Your task to perform on an android device: uninstall "Google Home" Image 0: 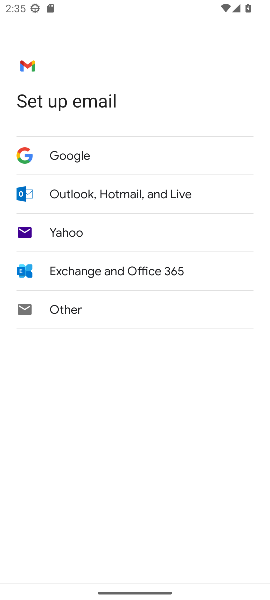
Step 0: press home button
Your task to perform on an android device: uninstall "Google Home" Image 1: 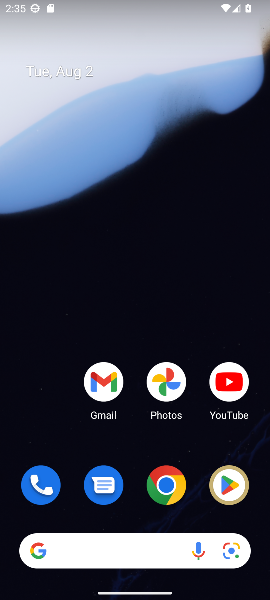
Step 1: click (231, 481)
Your task to perform on an android device: uninstall "Google Home" Image 2: 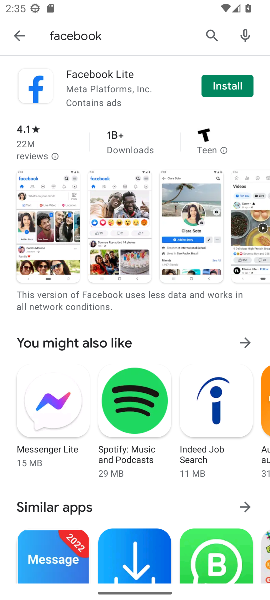
Step 2: click (209, 28)
Your task to perform on an android device: uninstall "Google Home" Image 3: 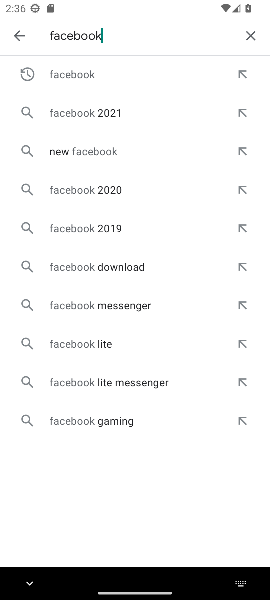
Step 3: click (248, 37)
Your task to perform on an android device: uninstall "Google Home" Image 4: 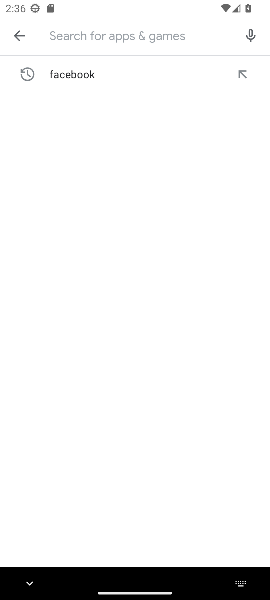
Step 4: type "Google Home"
Your task to perform on an android device: uninstall "Google Home" Image 5: 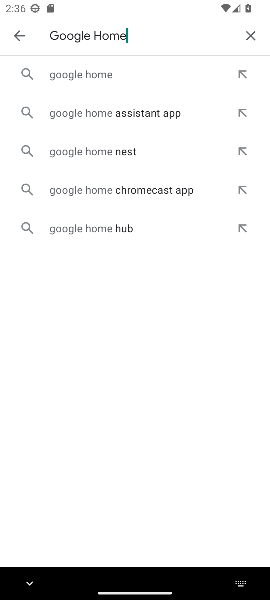
Step 5: click (69, 72)
Your task to perform on an android device: uninstall "Google Home" Image 6: 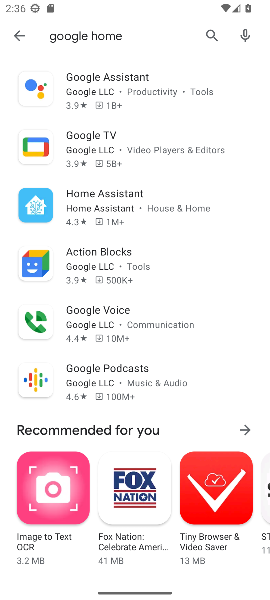
Step 6: task complete